Your task to perform on an android device: Go to Yahoo.com Image 0: 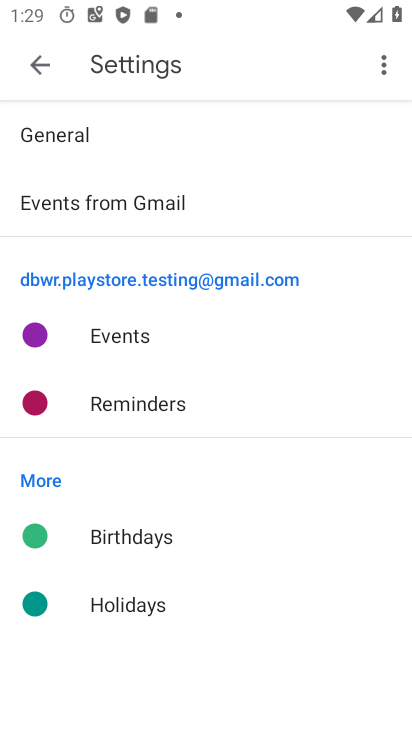
Step 0: press home button
Your task to perform on an android device: Go to Yahoo.com Image 1: 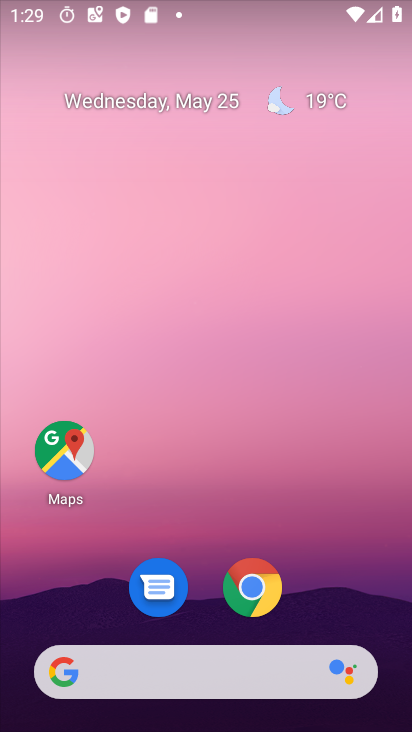
Step 1: click (254, 588)
Your task to perform on an android device: Go to Yahoo.com Image 2: 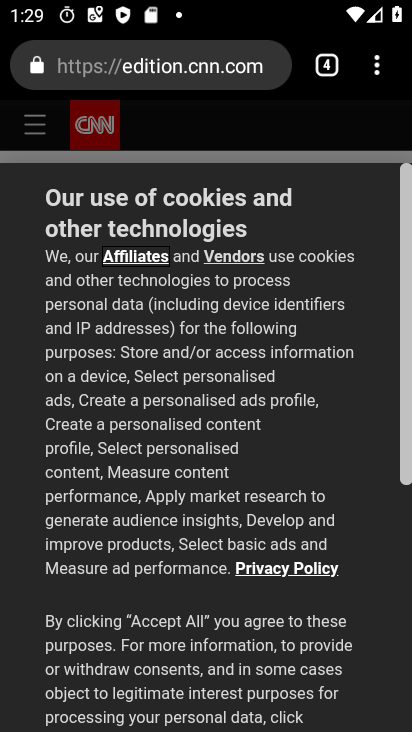
Step 2: click (379, 79)
Your task to perform on an android device: Go to Yahoo.com Image 3: 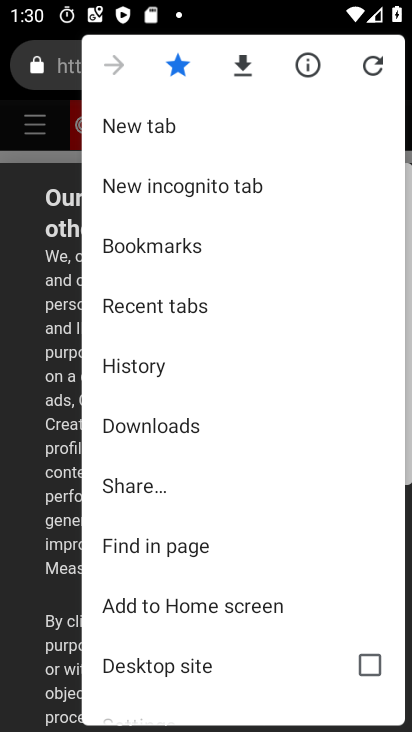
Step 3: click (138, 125)
Your task to perform on an android device: Go to Yahoo.com Image 4: 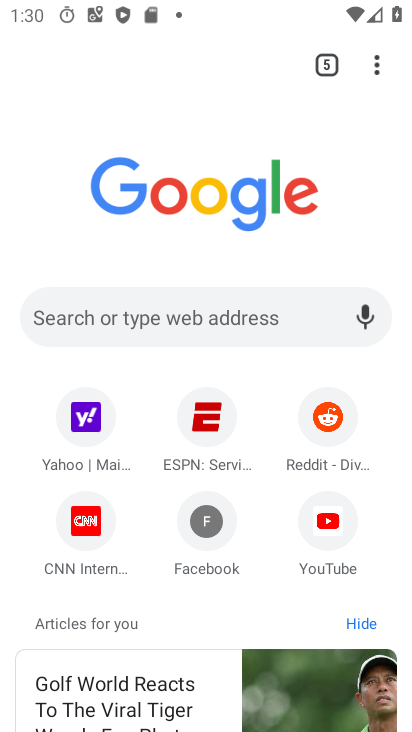
Step 4: click (83, 430)
Your task to perform on an android device: Go to Yahoo.com Image 5: 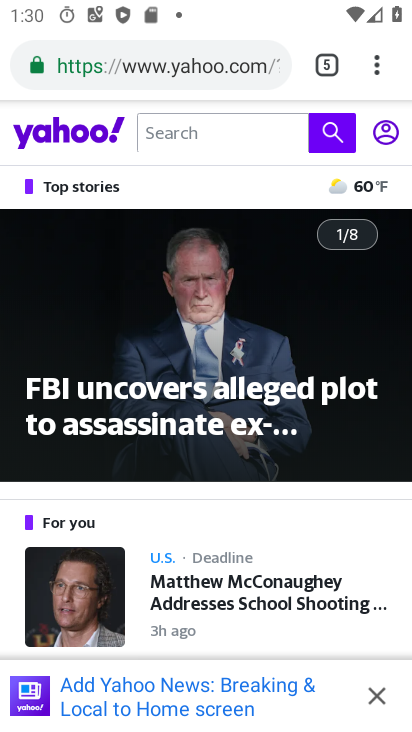
Step 5: task complete